Your task to perform on an android device: read, delete, or share a saved page in the chrome app Image 0: 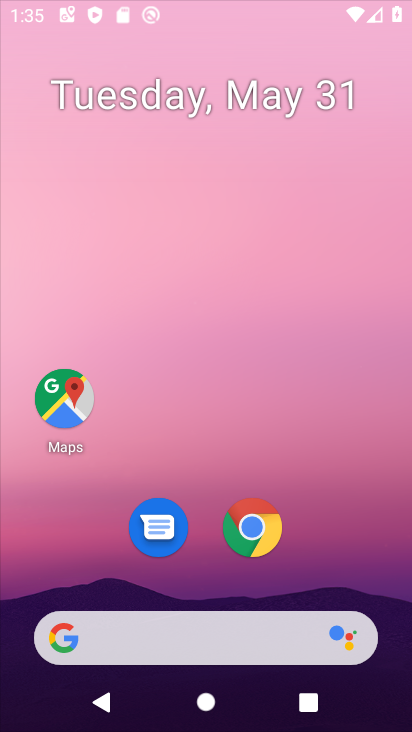
Step 0: drag from (346, 372) to (358, 137)
Your task to perform on an android device: read, delete, or share a saved page in the chrome app Image 1: 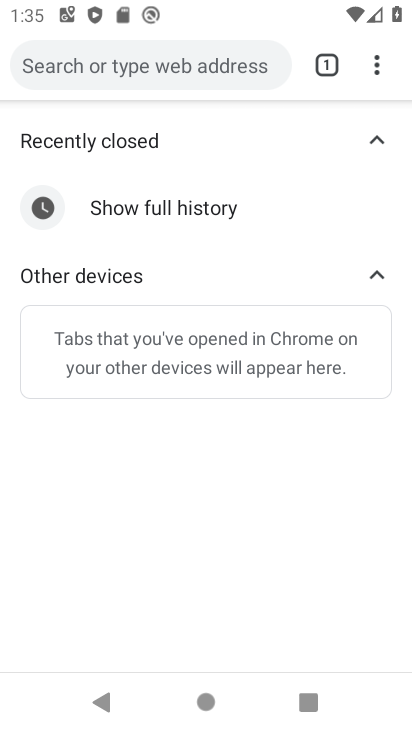
Step 1: press home button
Your task to perform on an android device: read, delete, or share a saved page in the chrome app Image 2: 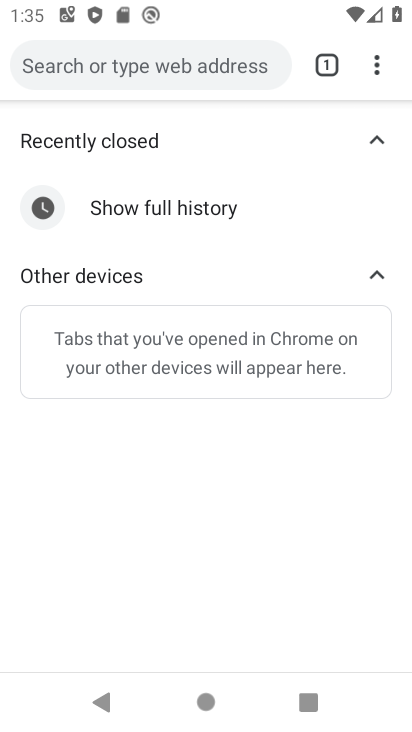
Step 2: drag from (358, 137) to (399, 432)
Your task to perform on an android device: read, delete, or share a saved page in the chrome app Image 3: 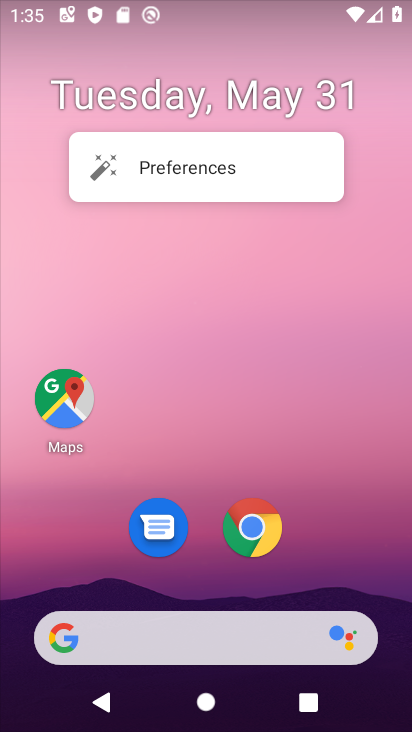
Step 3: drag from (386, 527) to (376, 113)
Your task to perform on an android device: read, delete, or share a saved page in the chrome app Image 4: 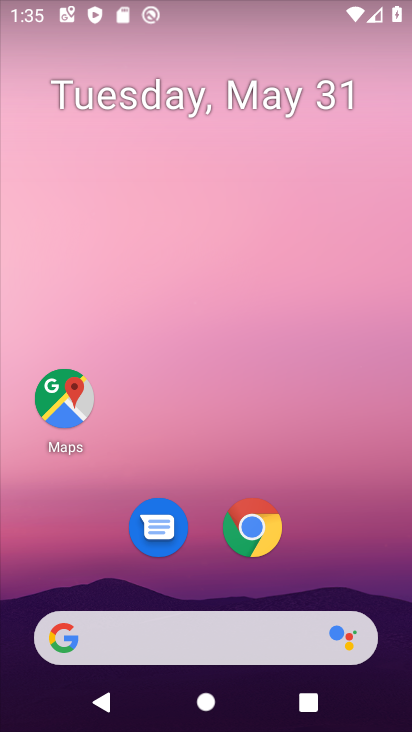
Step 4: drag from (347, 561) to (372, 176)
Your task to perform on an android device: read, delete, or share a saved page in the chrome app Image 5: 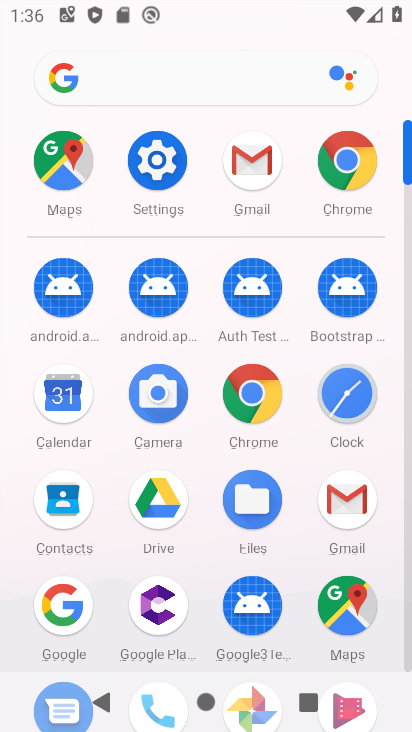
Step 5: click (355, 176)
Your task to perform on an android device: read, delete, or share a saved page in the chrome app Image 6: 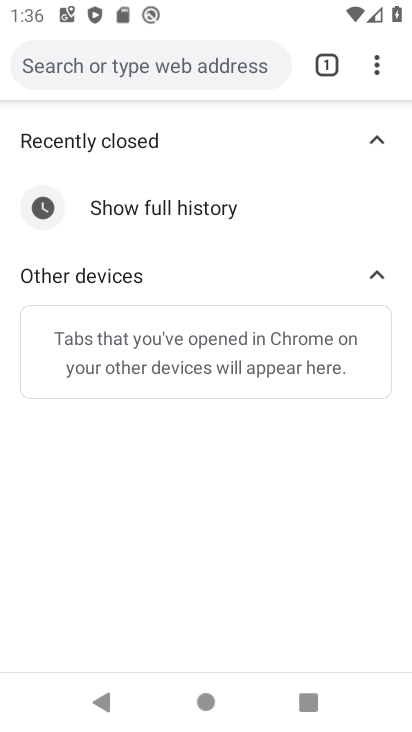
Step 6: task complete